Your task to perform on an android device: check the backup settings in the google photos Image 0: 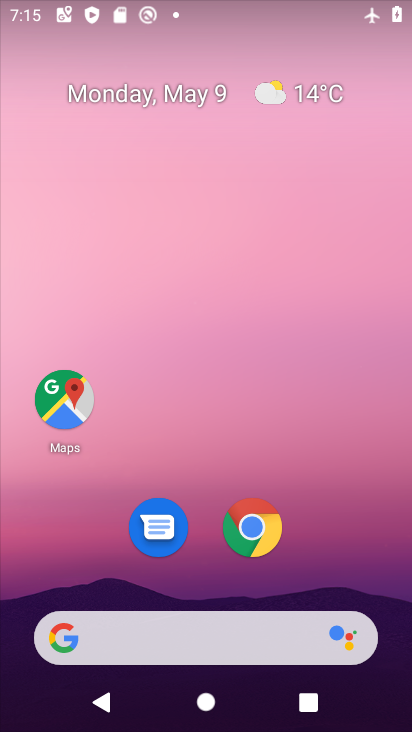
Step 0: drag from (334, 557) to (257, 3)
Your task to perform on an android device: check the backup settings in the google photos Image 1: 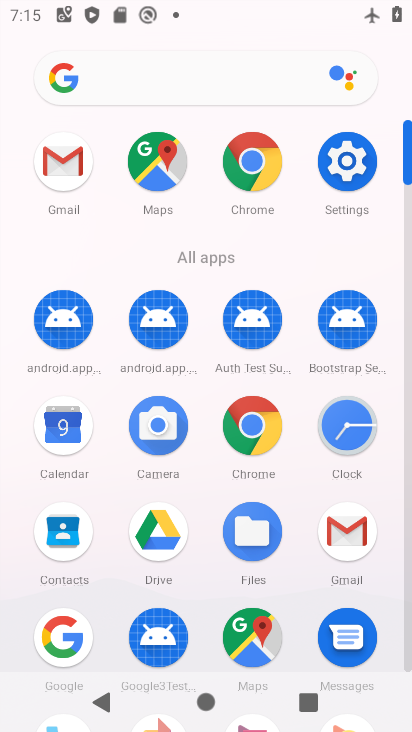
Step 1: drag from (216, 569) to (207, 335)
Your task to perform on an android device: check the backup settings in the google photos Image 2: 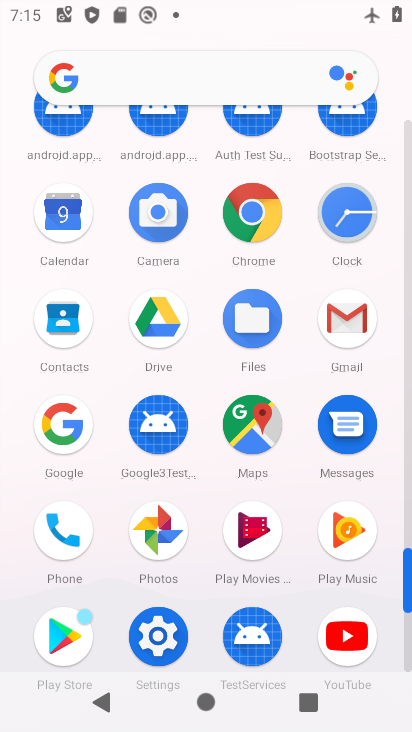
Step 2: click (158, 529)
Your task to perform on an android device: check the backup settings in the google photos Image 3: 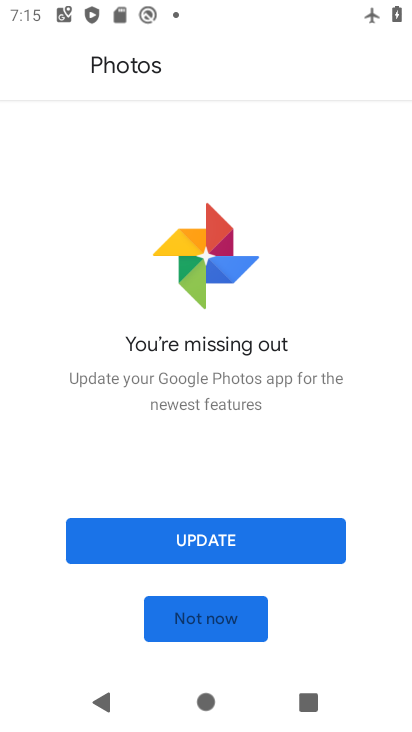
Step 3: click (233, 535)
Your task to perform on an android device: check the backup settings in the google photos Image 4: 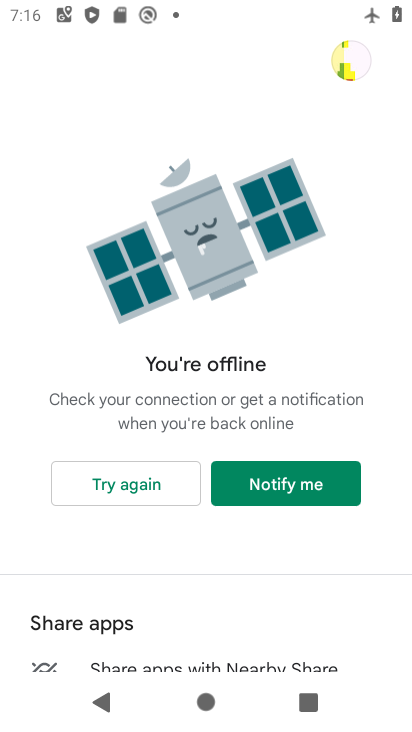
Step 4: task complete